Your task to perform on an android device: Go to Yahoo.com Image 0: 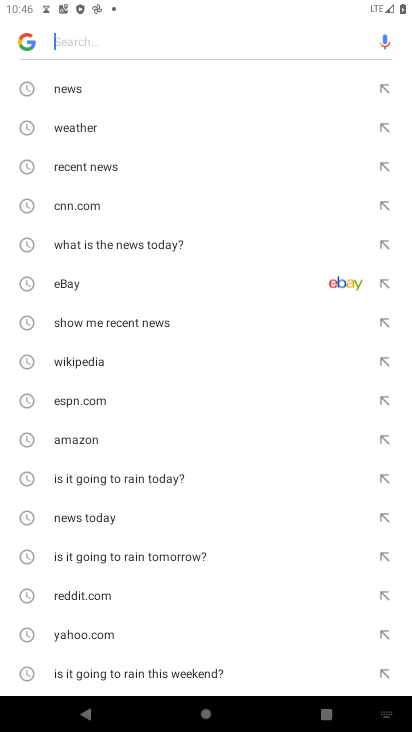
Step 0: press home button
Your task to perform on an android device: Go to Yahoo.com Image 1: 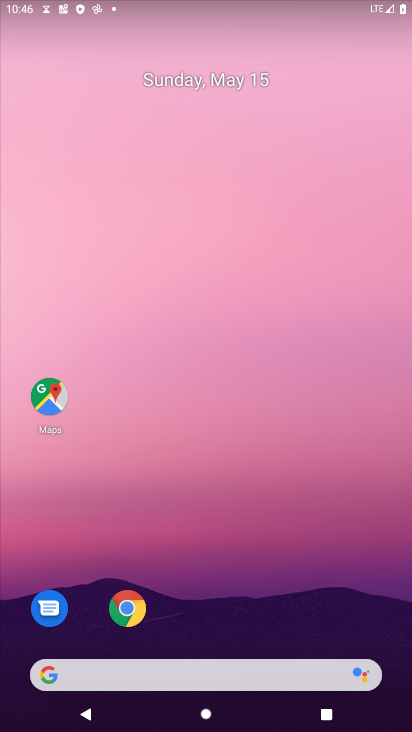
Step 1: drag from (229, 537) to (140, 36)
Your task to perform on an android device: Go to Yahoo.com Image 2: 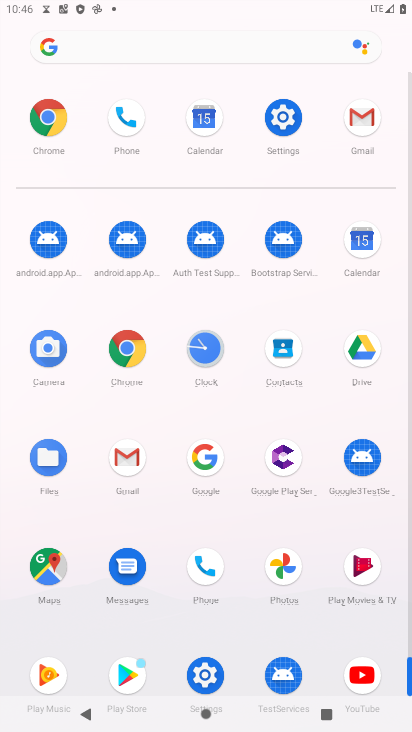
Step 2: click (57, 118)
Your task to perform on an android device: Go to Yahoo.com Image 3: 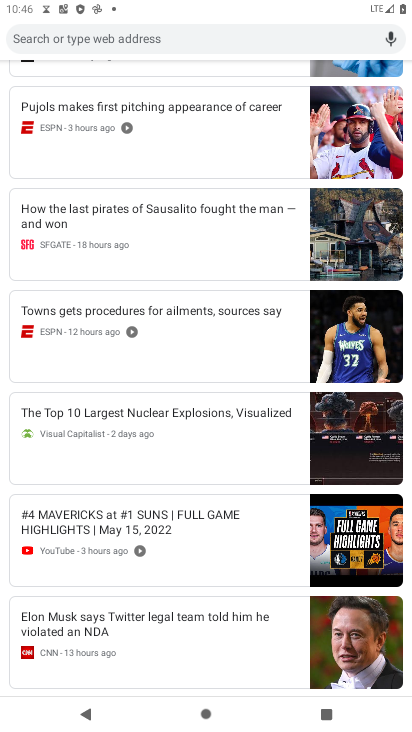
Step 3: drag from (56, 115) to (101, 580)
Your task to perform on an android device: Go to Yahoo.com Image 4: 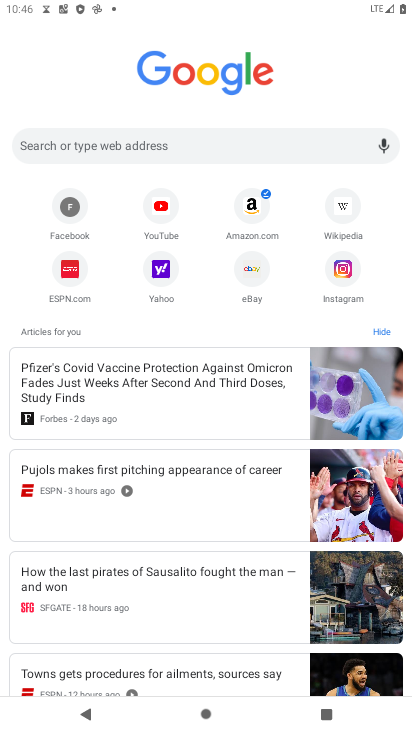
Step 4: click (155, 287)
Your task to perform on an android device: Go to Yahoo.com Image 5: 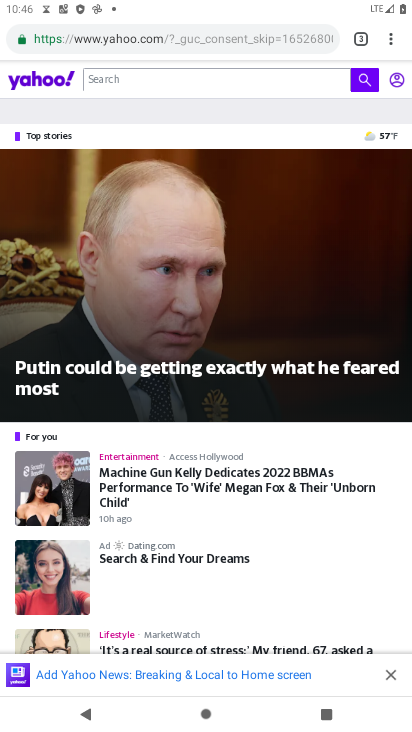
Step 5: task complete